Your task to perform on an android device: turn pop-ups on in chrome Image 0: 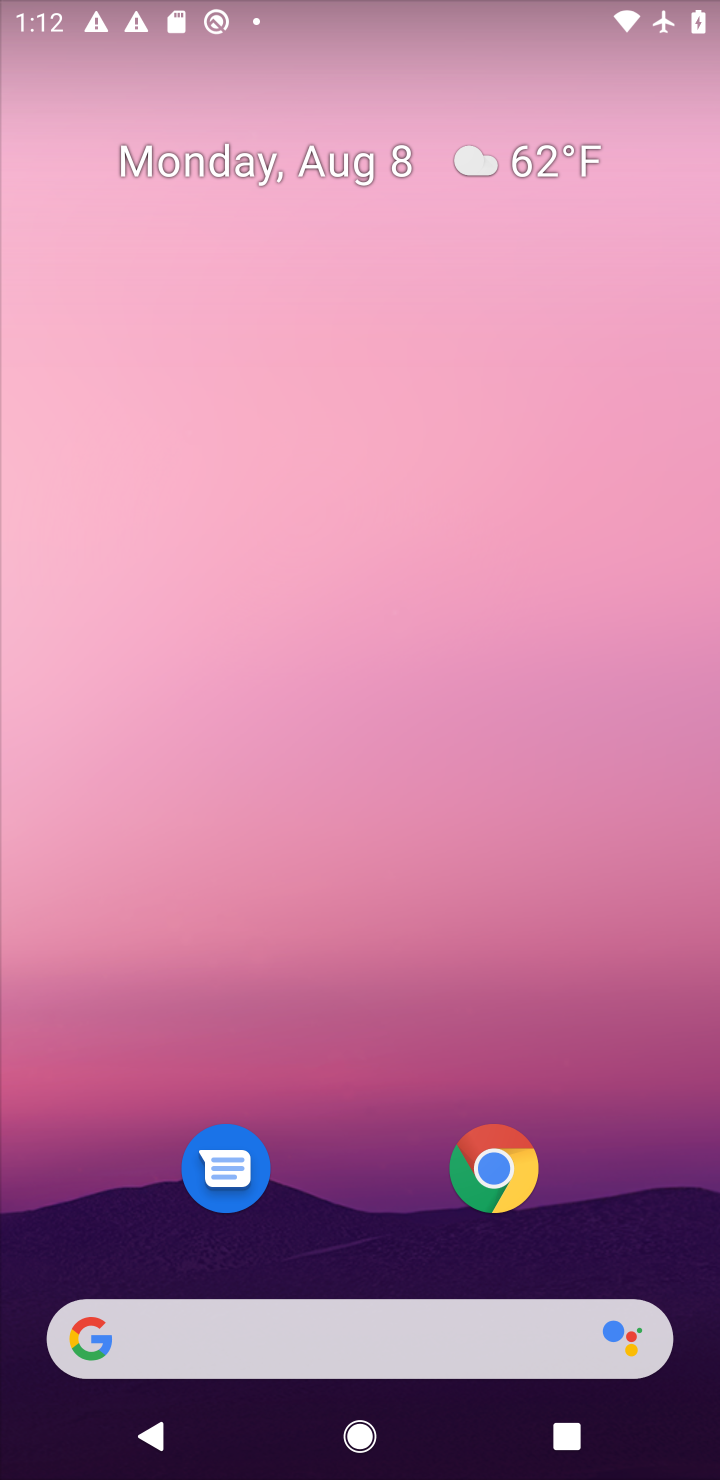
Step 0: click (517, 1202)
Your task to perform on an android device: turn pop-ups on in chrome Image 1: 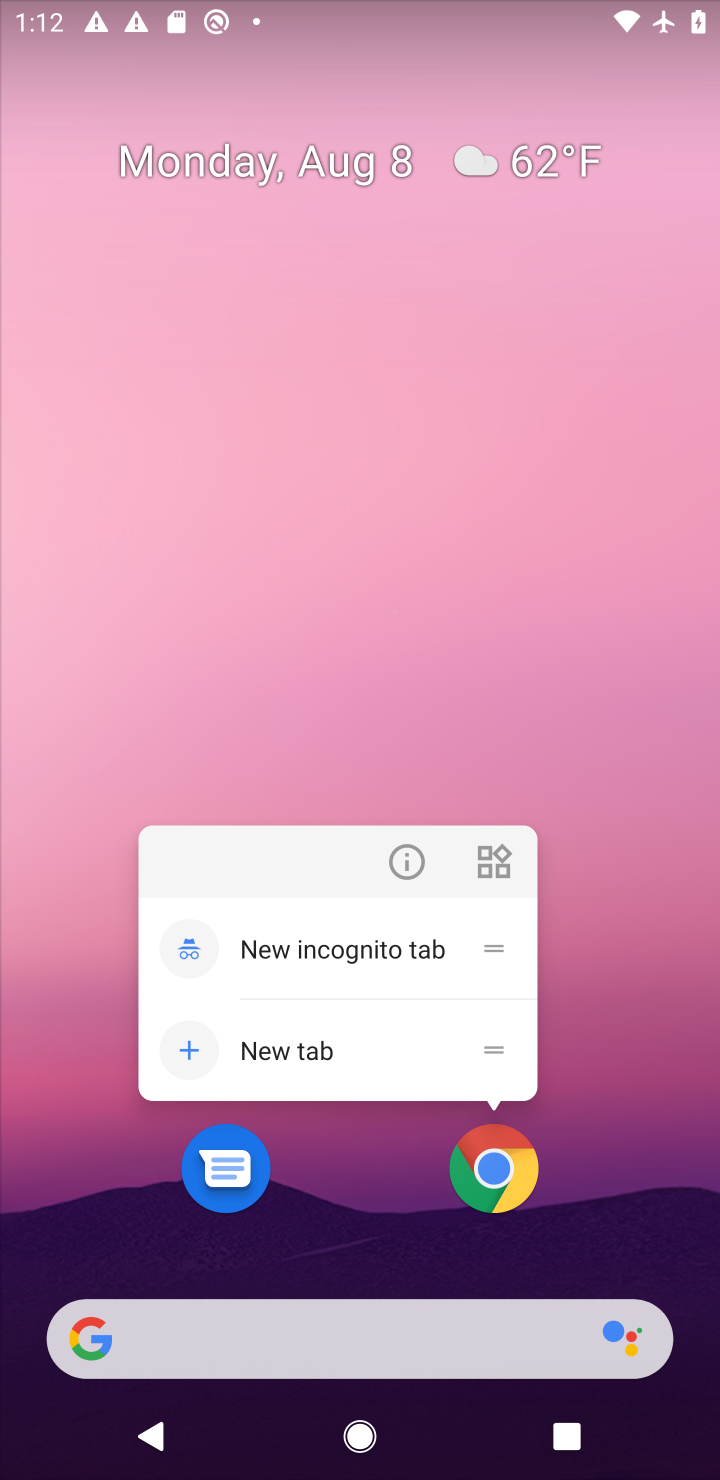
Step 1: click (498, 1183)
Your task to perform on an android device: turn pop-ups on in chrome Image 2: 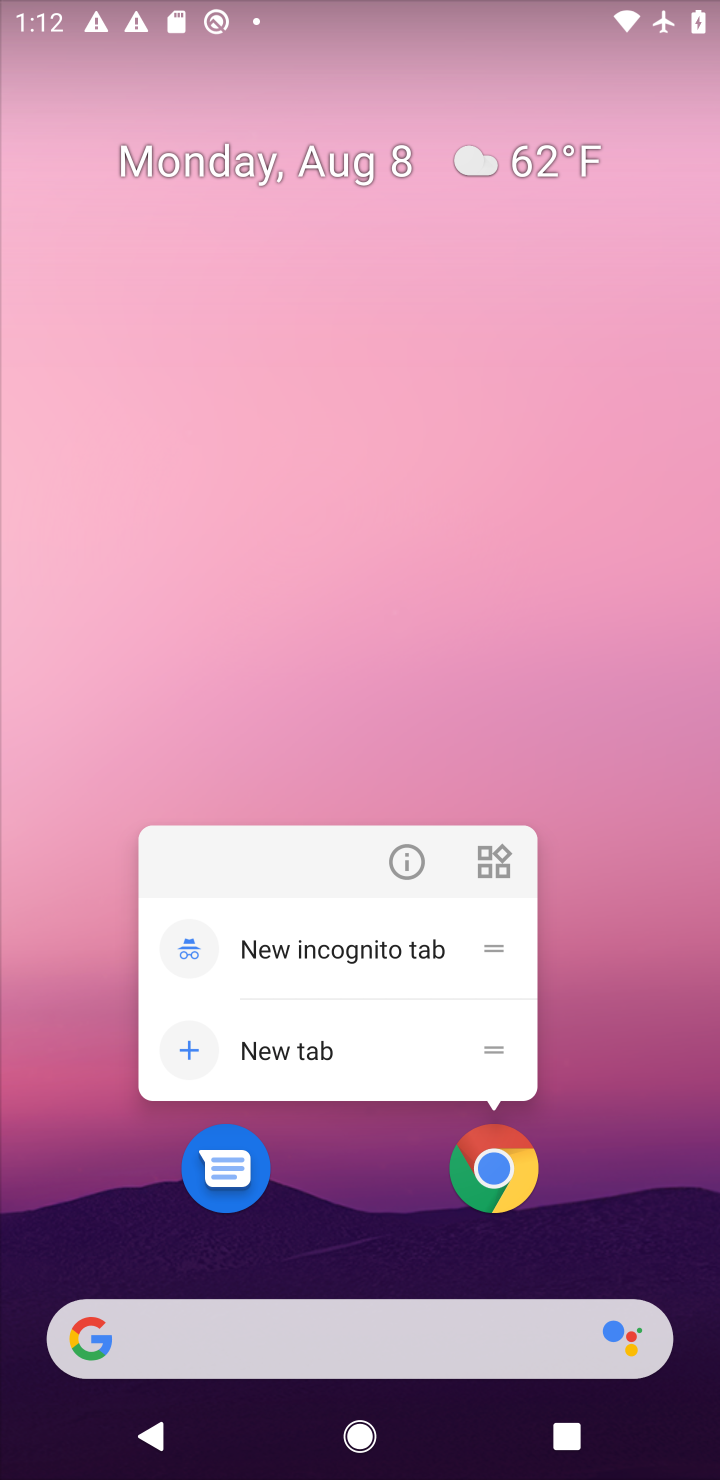
Step 2: click (498, 1183)
Your task to perform on an android device: turn pop-ups on in chrome Image 3: 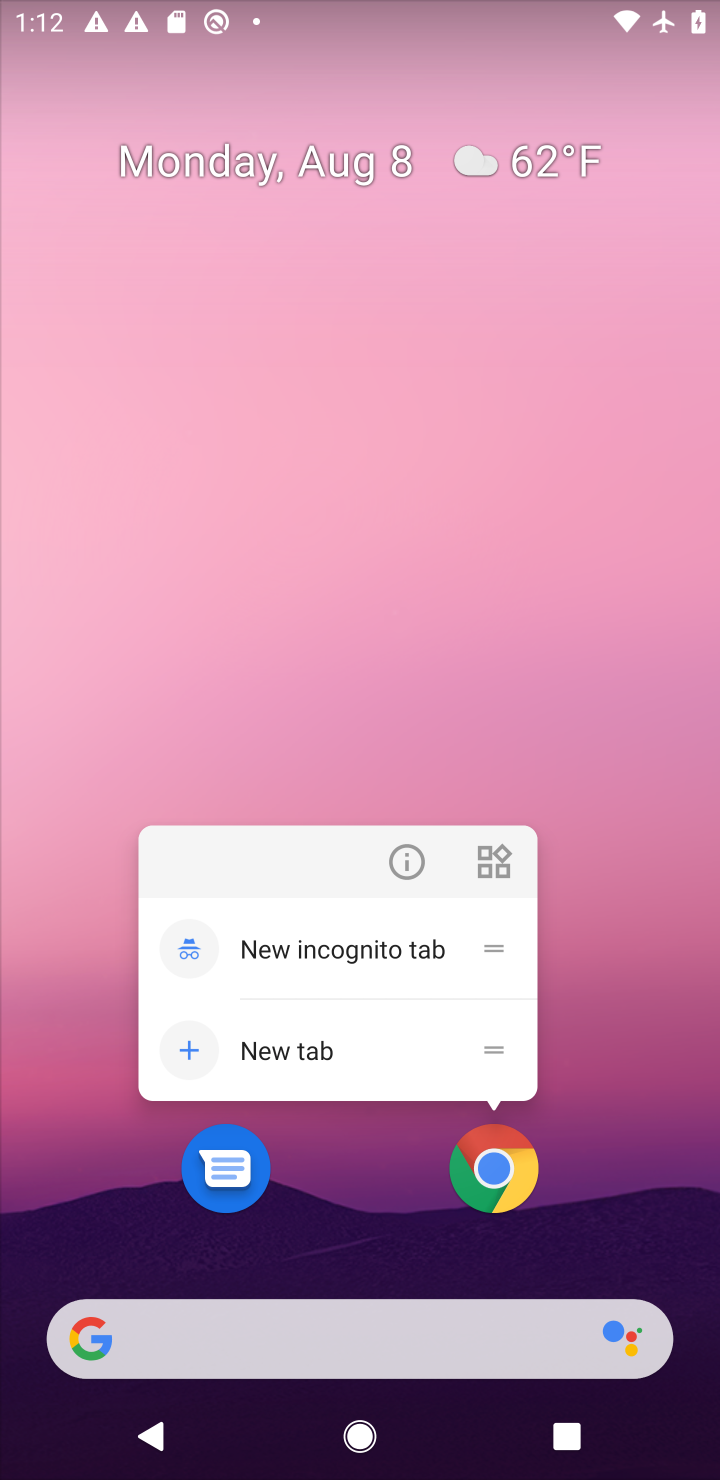
Step 3: click (498, 1183)
Your task to perform on an android device: turn pop-ups on in chrome Image 4: 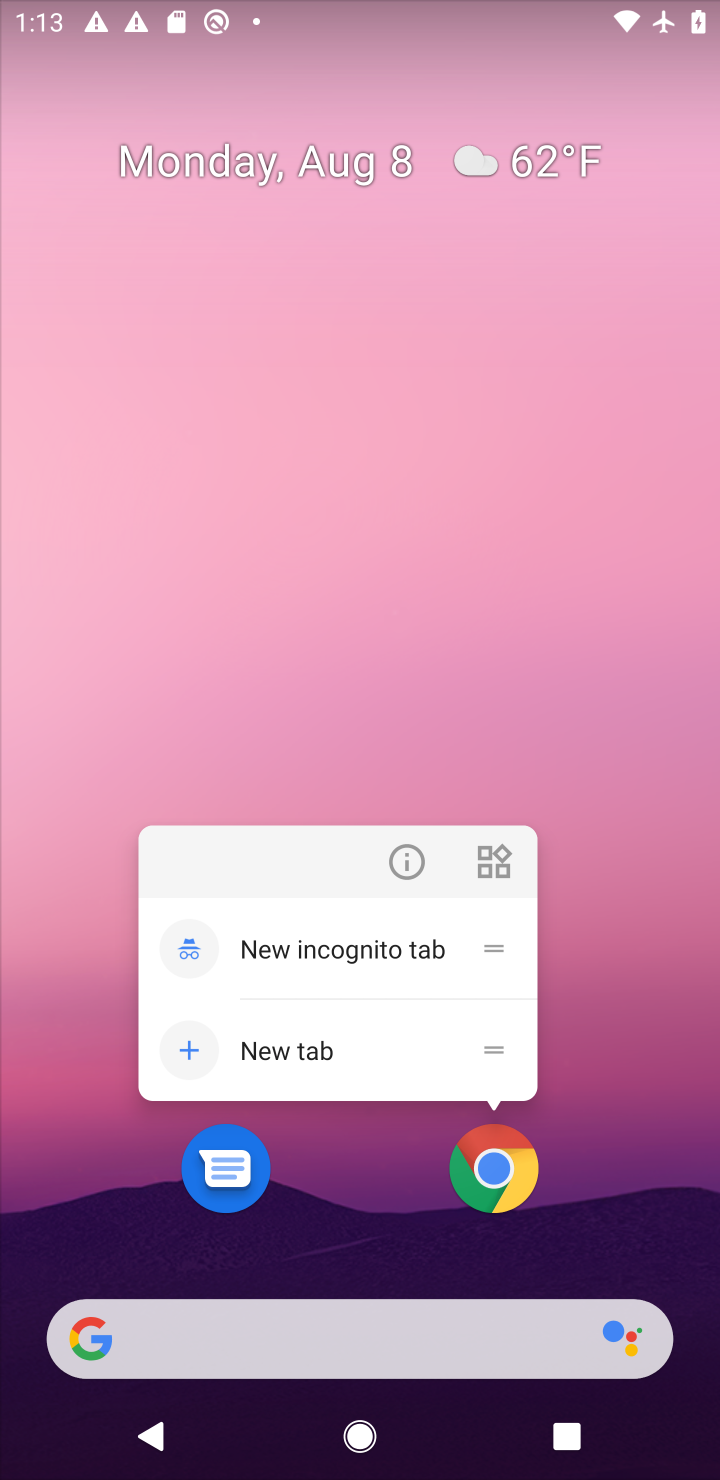
Step 4: task complete